Your task to perform on an android device: turn pop-ups off in chrome Image 0: 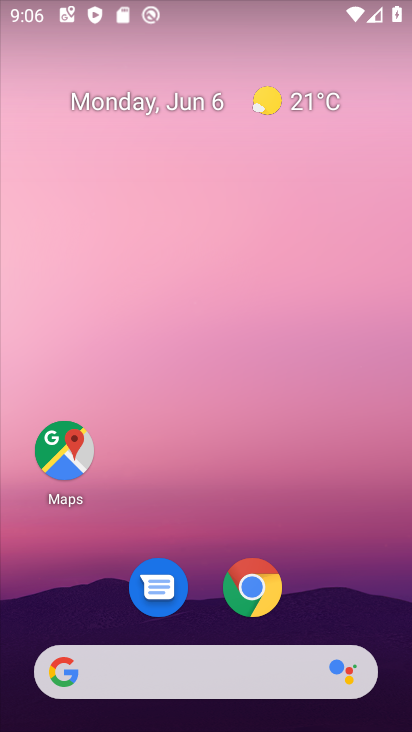
Step 0: click (246, 590)
Your task to perform on an android device: turn pop-ups off in chrome Image 1: 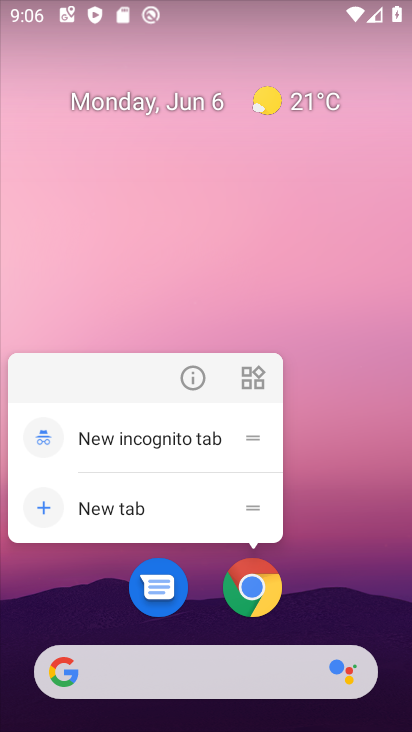
Step 1: click (326, 561)
Your task to perform on an android device: turn pop-ups off in chrome Image 2: 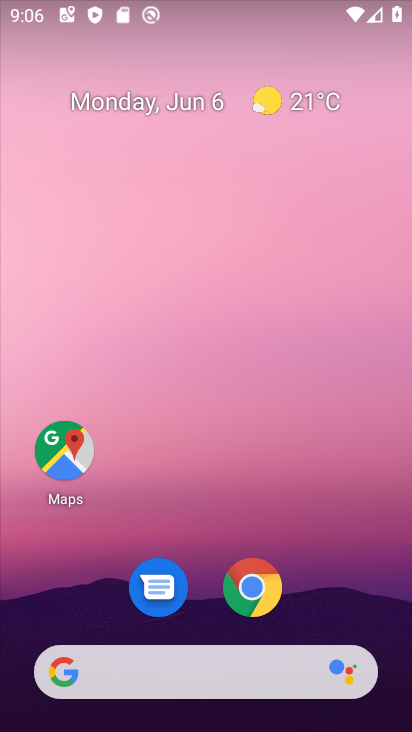
Step 2: click (240, 596)
Your task to perform on an android device: turn pop-ups off in chrome Image 3: 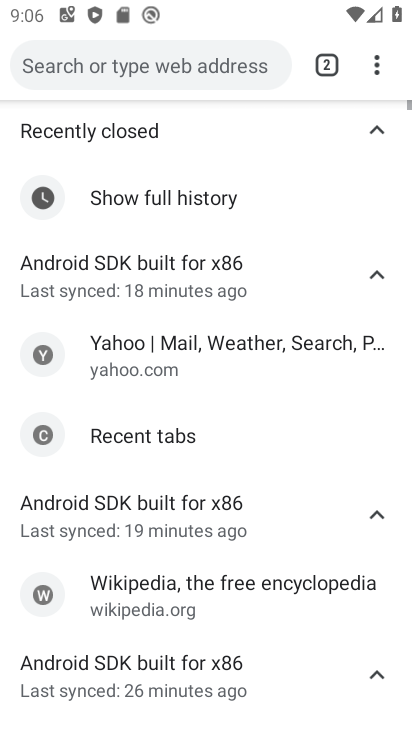
Step 3: click (378, 63)
Your task to perform on an android device: turn pop-ups off in chrome Image 4: 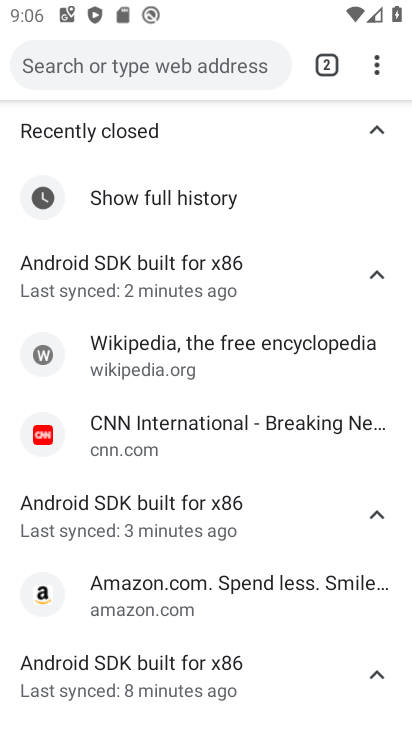
Step 4: click (378, 63)
Your task to perform on an android device: turn pop-ups off in chrome Image 5: 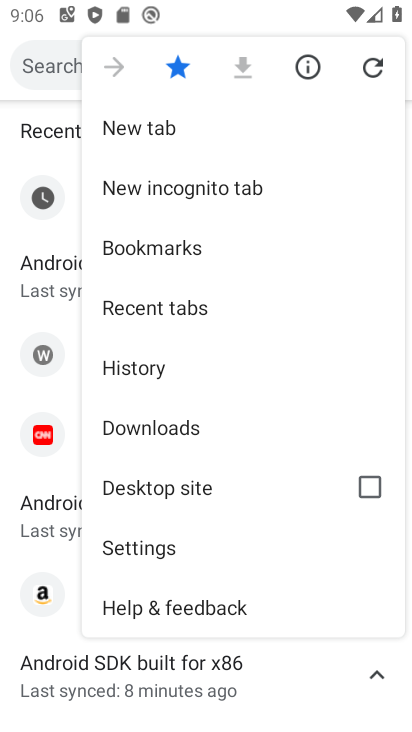
Step 5: click (190, 546)
Your task to perform on an android device: turn pop-ups off in chrome Image 6: 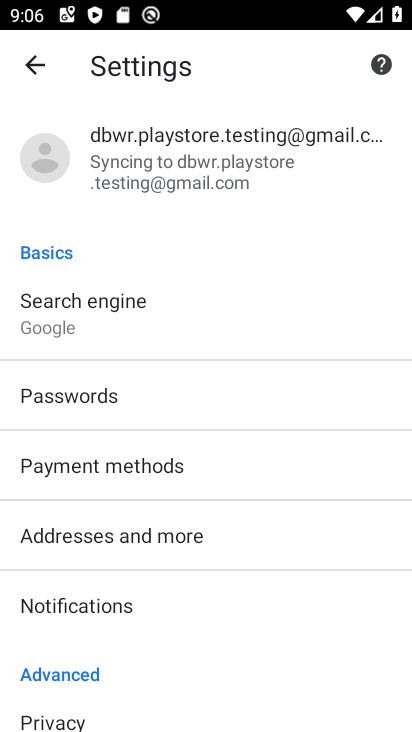
Step 6: drag from (276, 617) to (360, 31)
Your task to perform on an android device: turn pop-ups off in chrome Image 7: 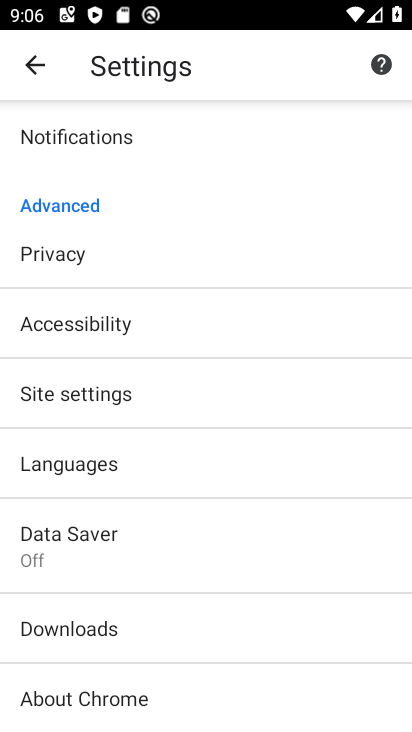
Step 7: click (187, 395)
Your task to perform on an android device: turn pop-ups off in chrome Image 8: 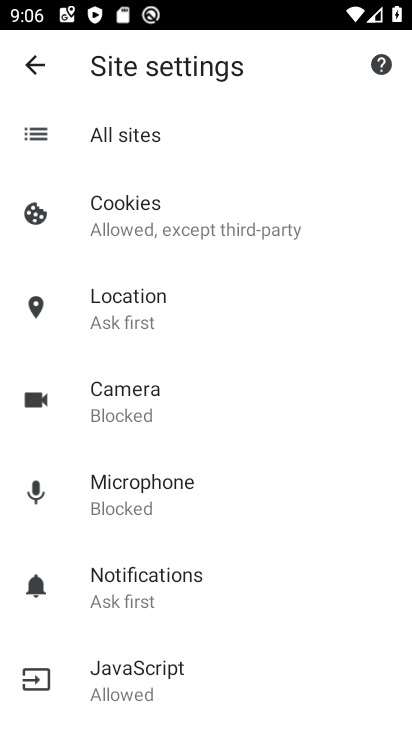
Step 8: drag from (205, 621) to (214, 102)
Your task to perform on an android device: turn pop-ups off in chrome Image 9: 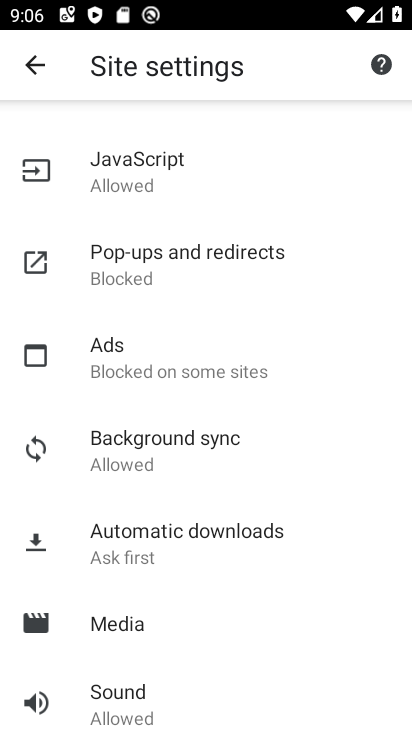
Step 9: click (309, 248)
Your task to perform on an android device: turn pop-ups off in chrome Image 10: 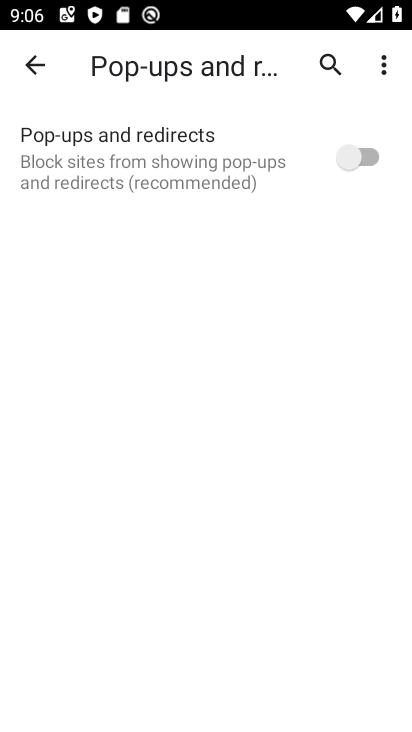
Step 10: task complete